Your task to perform on an android device: turn notification dots on Image 0: 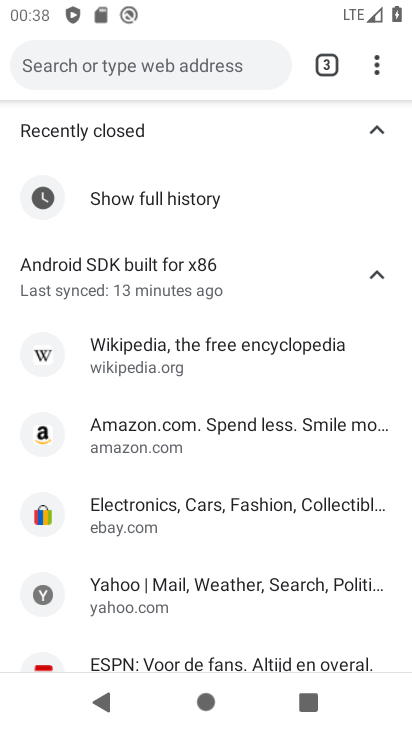
Step 0: click (392, 72)
Your task to perform on an android device: turn notification dots on Image 1: 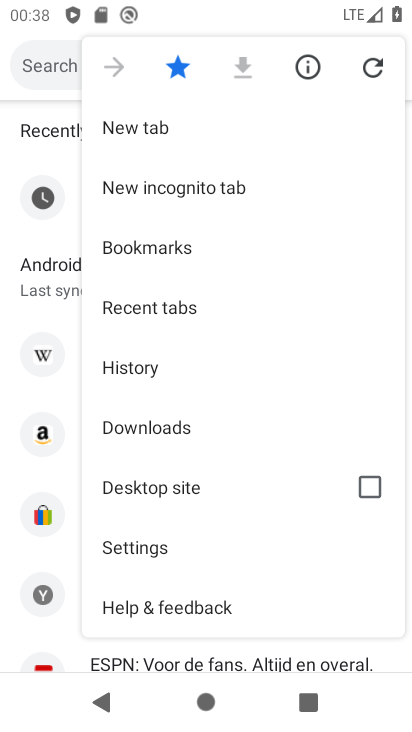
Step 1: press home button
Your task to perform on an android device: turn notification dots on Image 2: 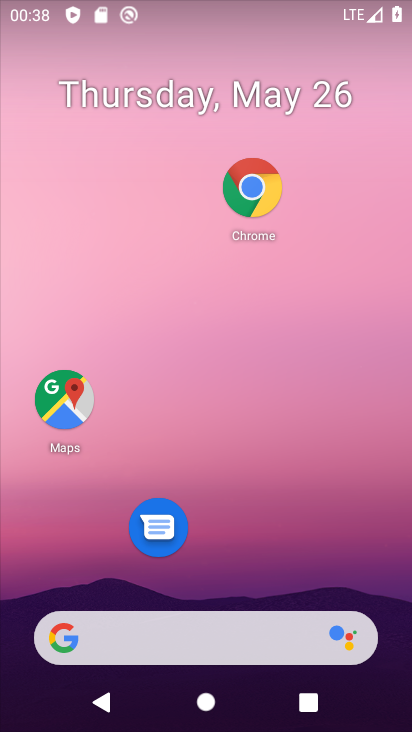
Step 2: click (175, 82)
Your task to perform on an android device: turn notification dots on Image 3: 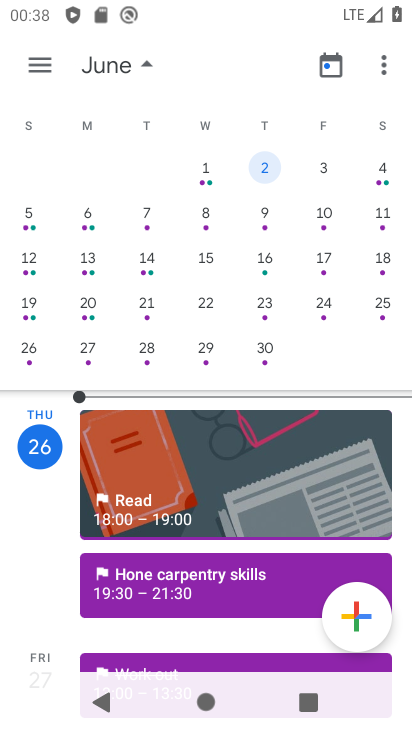
Step 3: drag from (209, 491) to (209, 82)
Your task to perform on an android device: turn notification dots on Image 4: 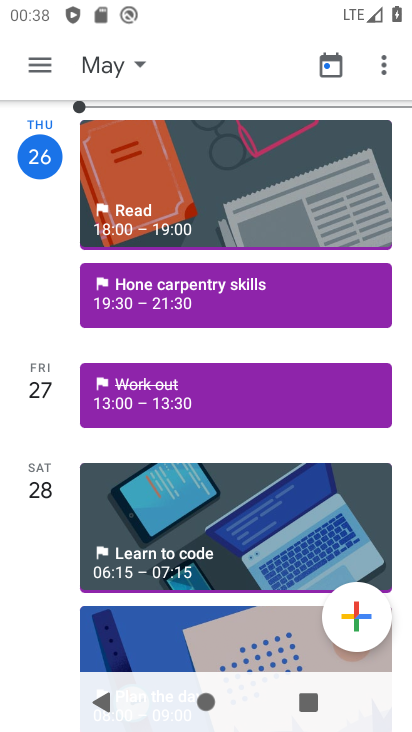
Step 4: press home button
Your task to perform on an android device: turn notification dots on Image 5: 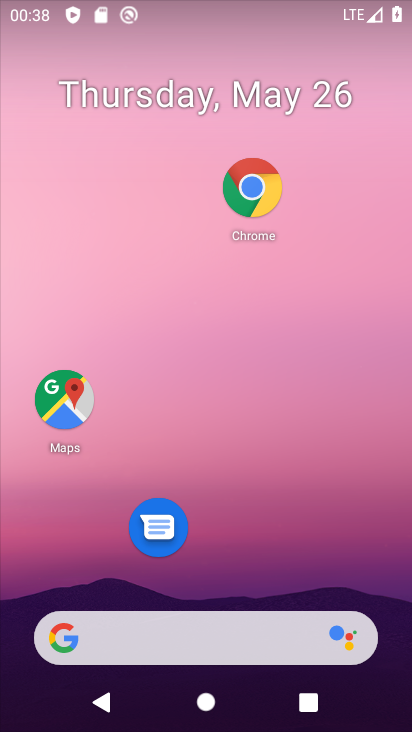
Step 5: drag from (232, 606) to (225, 25)
Your task to perform on an android device: turn notification dots on Image 6: 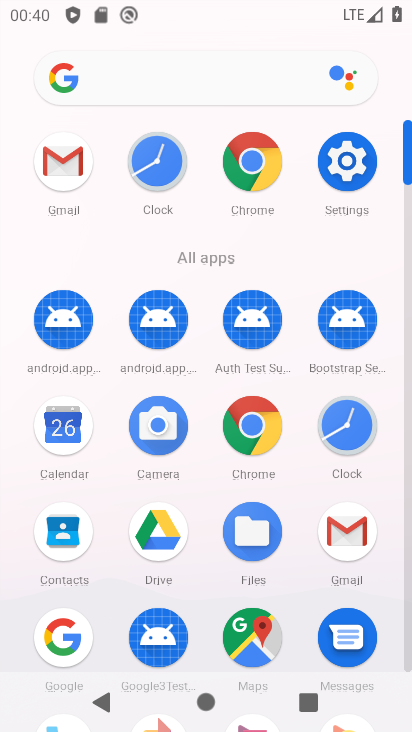
Step 6: click (345, 138)
Your task to perform on an android device: turn notification dots on Image 7: 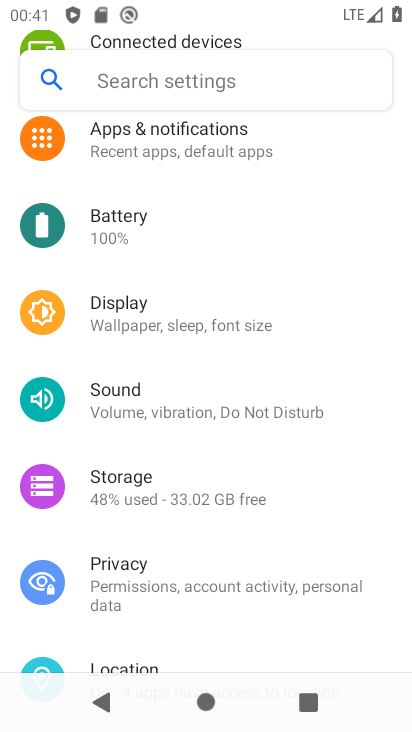
Step 7: click (160, 177)
Your task to perform on an android device: turn notification dots on Image 8: 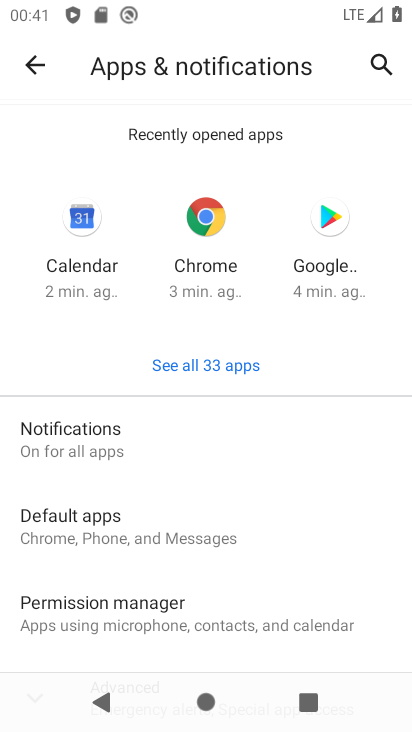
Step 8: click (47, 428)
Your task to perform on an android device: turn notification dots on Image 9: 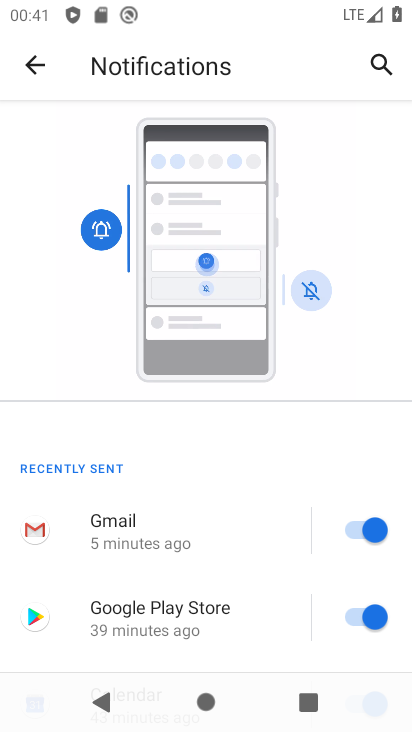
Step 9: drag from (106, 623) to (210, 107)
Your task to perform on an android device: turn notification dots on Image 10: 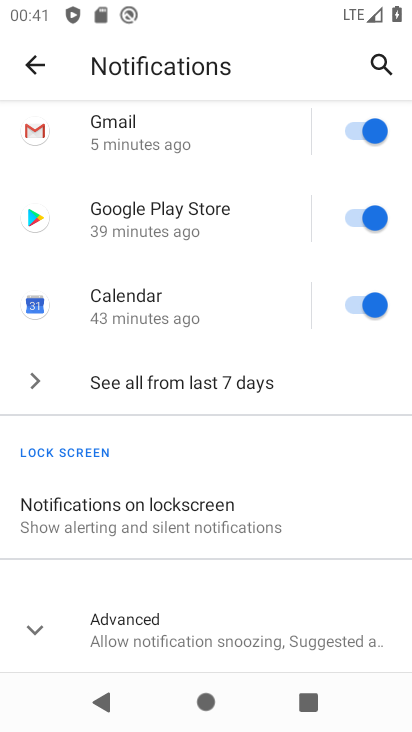
Step 10: drag from (104, 523) to (118, 193)
Your task to perform on an android device: turn notification dots on Image 11: 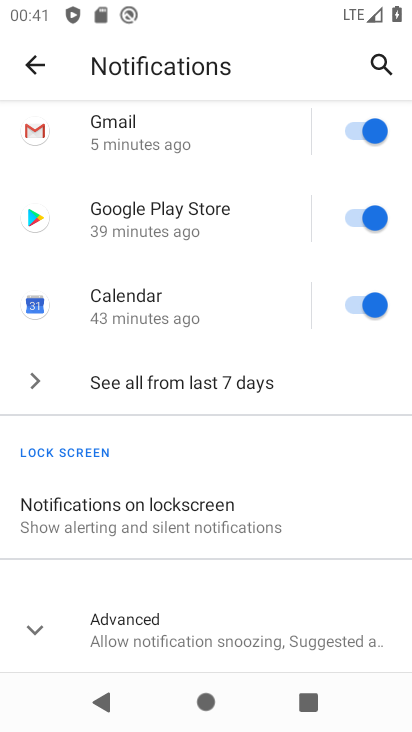
Step 11: click (218, 620)
Your task to perform on an android device: turn notification dots on Image 12: 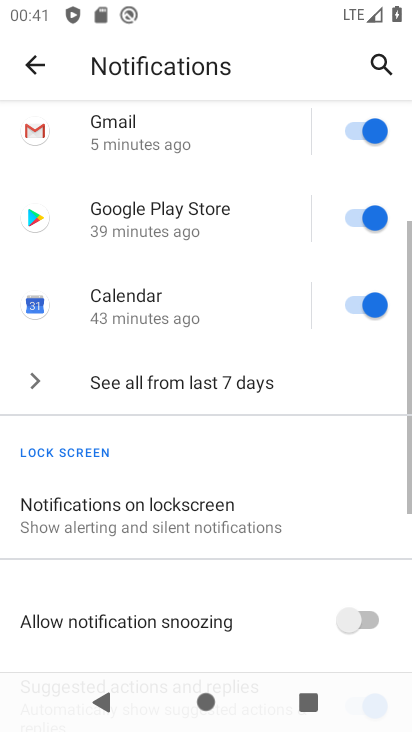
Step 12: task complete